Your task to perform on an android device: toggle translation in the chrome app Image 0: 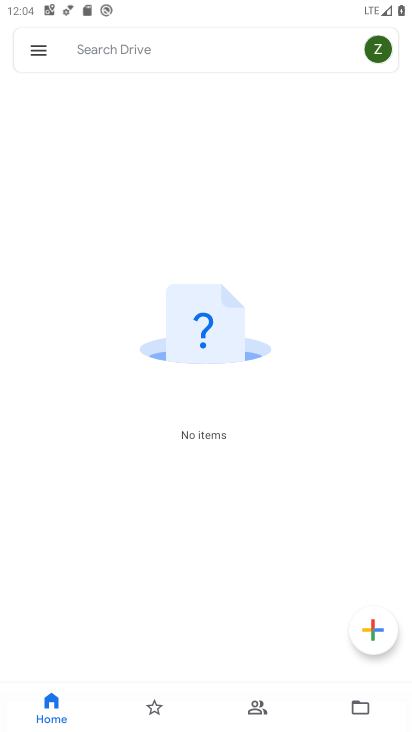
Step 0: press home button
Your task to perform on an android device: toggle translation in the chrome app Image 1: 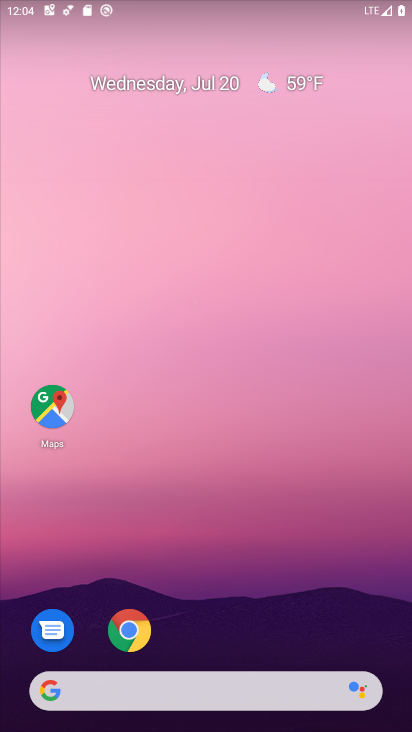
Step 1: click (132, 630)
Your task to perform on an android device: toggle translation in the chrome app Image 2: 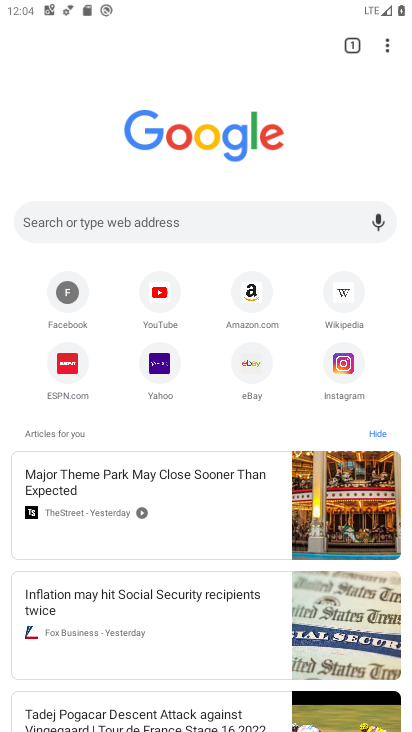
Step 2: click (388, 49)
Your task to perform on an android device: toggle translation in the chrome app Image 3: 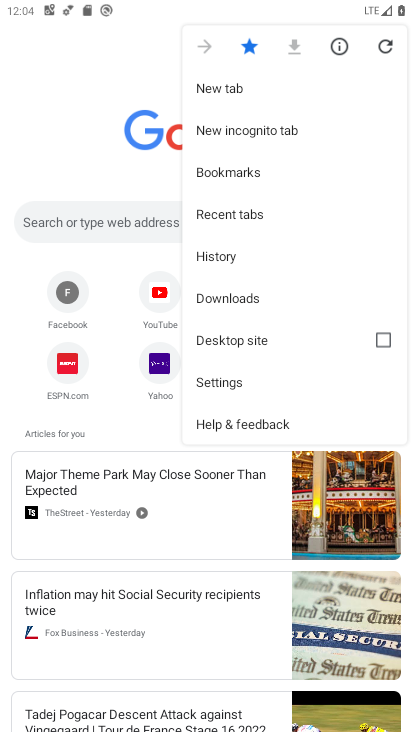
Step 3: click (219, 380)
Your task to perform on an android device: toggle translation in the chrome app Image 4: 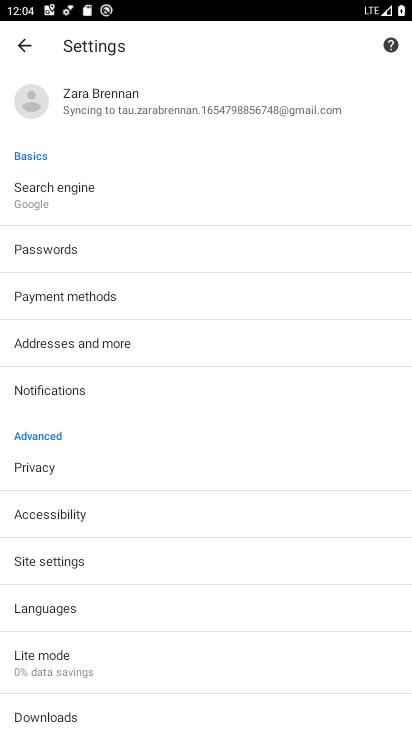
Step 4: click (44, 613)
Your task to perform on an android device: toggle translation in the chrome app Image 5: 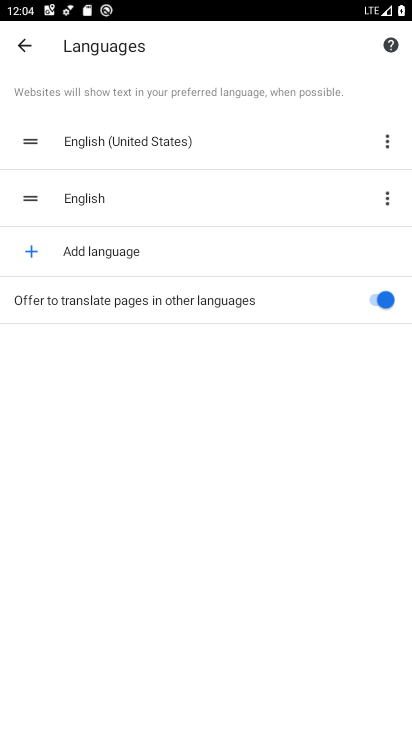
Step 5: click (371, 297)
Your task to perform on an android device: toggle translation in the chrome app Image 6: 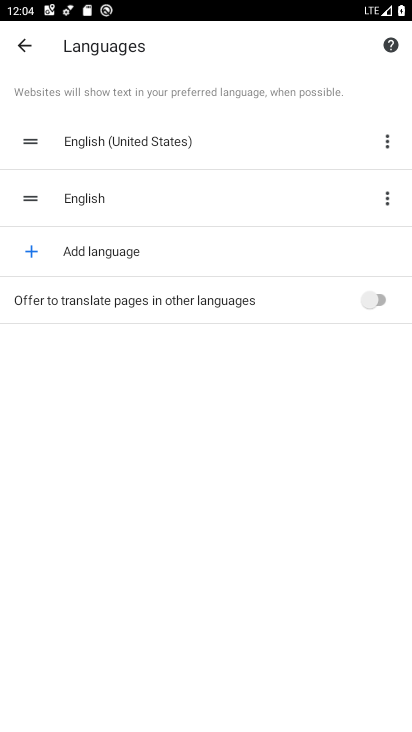
Step 6: task complete